Your task to perform on an android device: Go to Maps Image 0: 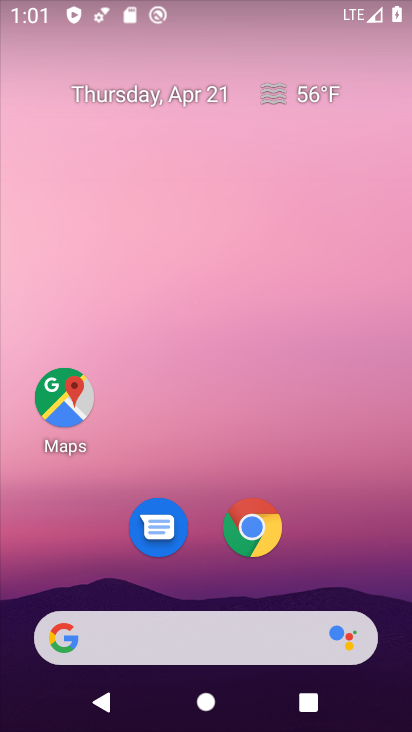
Step 0: click (54, 404)
Your task to perform on an android device: Go to Maps Image 1: 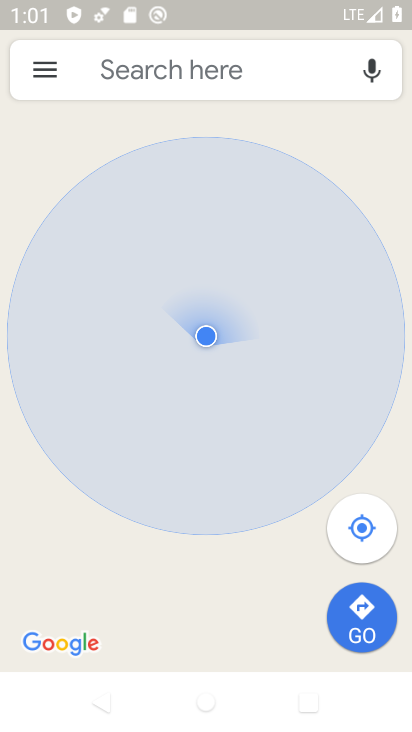
Step 1: task complete